Your task to perform on an android device: turn on data saver in the chrome app Image 0: 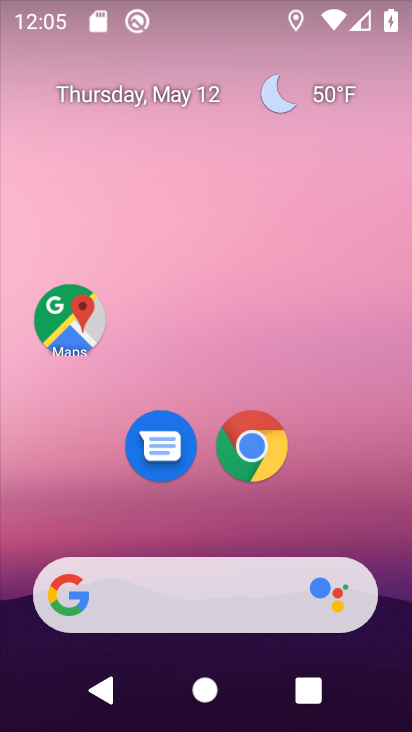
Step 0: click (257, 455)
Your task to perform on an android device: turn on data saver in the chrome app Image 1: 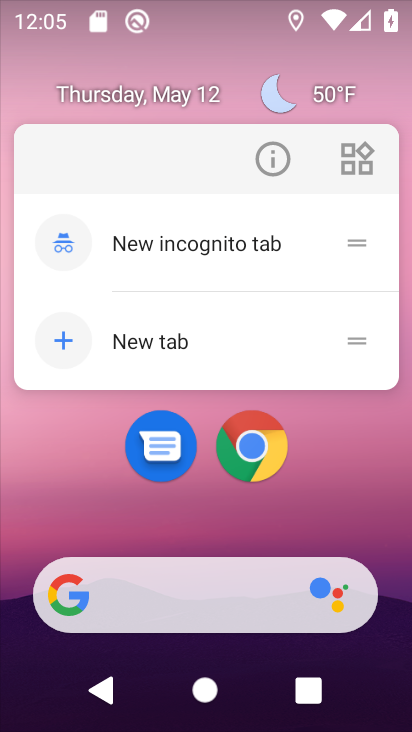
Step 1: click (259, 440)
Your task to perform on an android device: turn on data saver in the chrome app Image 2: 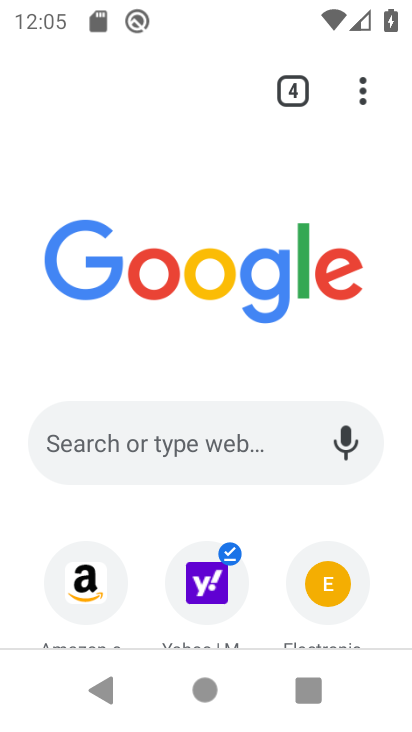
Step 2: click (372, 79)
Your task to perform on an android device: turn on data saver in the chrome app Image 3: 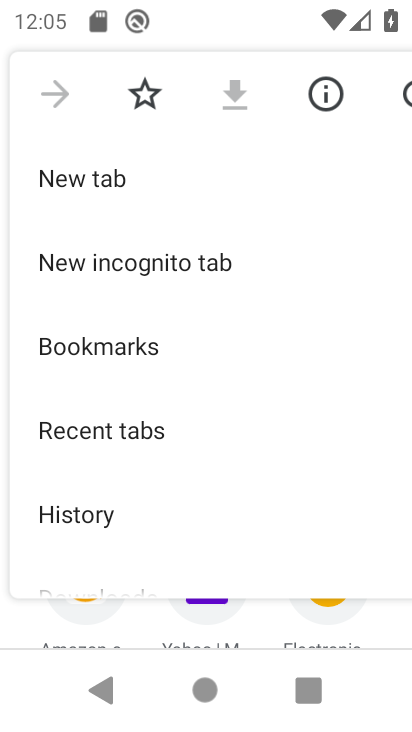
Step 3: drag from (205, 567) to (204, 137)
Your task to perform on an android device: turn on data saver in the chrome app Image 4: 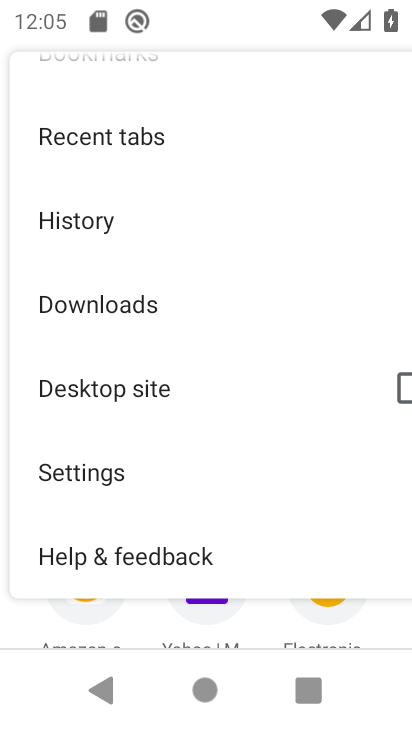
Step 4: click (94, 481)
Your task to perform on an android device: turn on data saver in the chrome app Image 5: 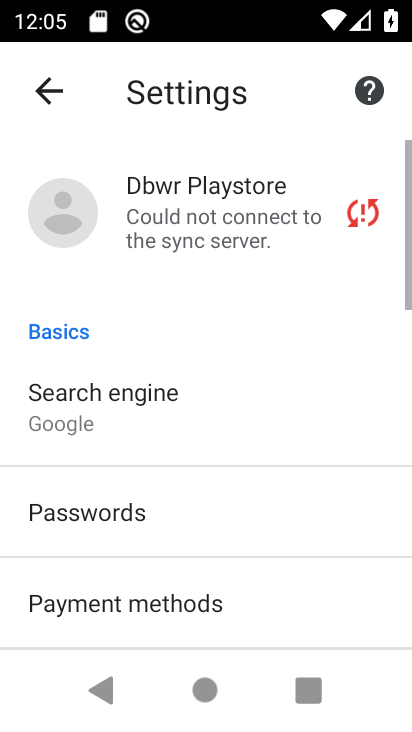
Step 5: drag from (160, 543) to (195, 220)
Your task to perform on an android device: turn on data saver in the chrome app Image 6: 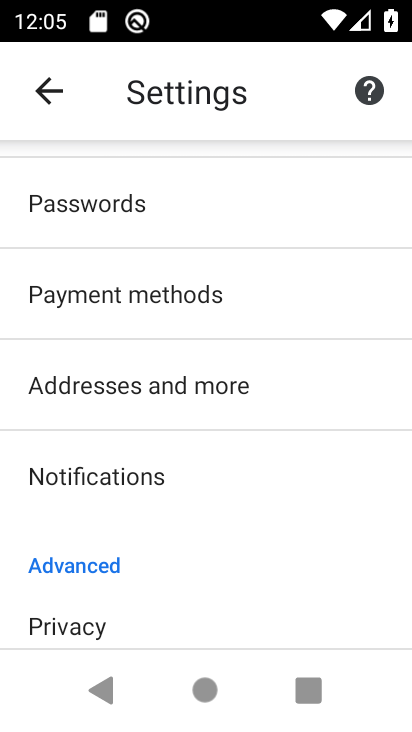
Step 6: drag from (173, 585) to (209, 350)
Your task to perform on an android device: turn on data saver in the chrome app Image 7: 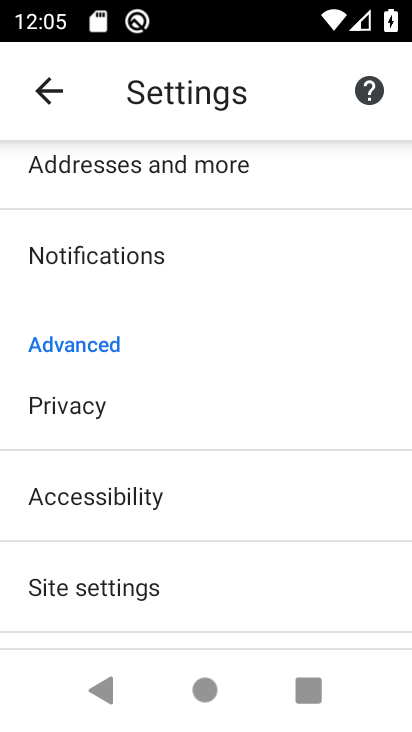
Step 7: drag from (199, 535) to (219, 194)
Your task to perform on an android device: turn on data saver in the chrome app Image 8: 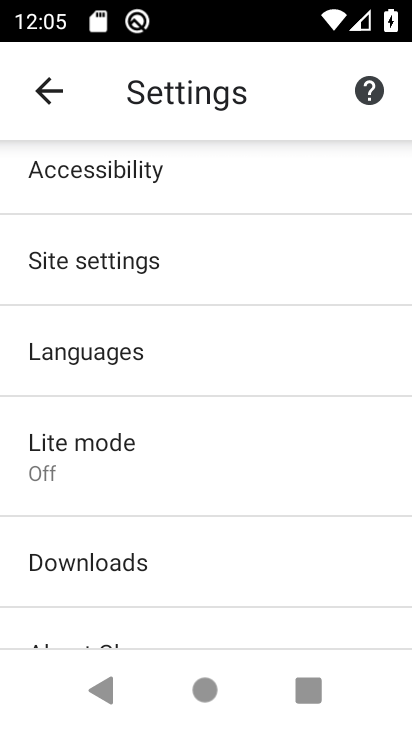
Step 8: click (131, 456)
Your task to perform on an android device: turn on data saver in the chrome app Image 9: 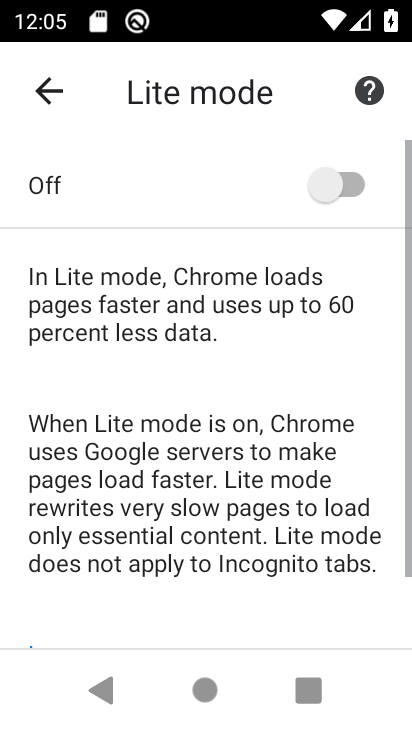
Step 9: click (346, 177)
Your task to perform on an android device: turn on data saver in the chrome app Image 10: 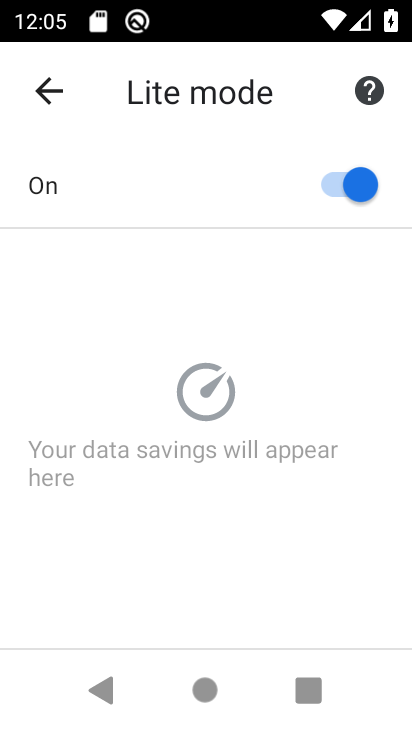
Step 10: task complete